Your task to perform on an android device: Toggle the flashlight Image 0: 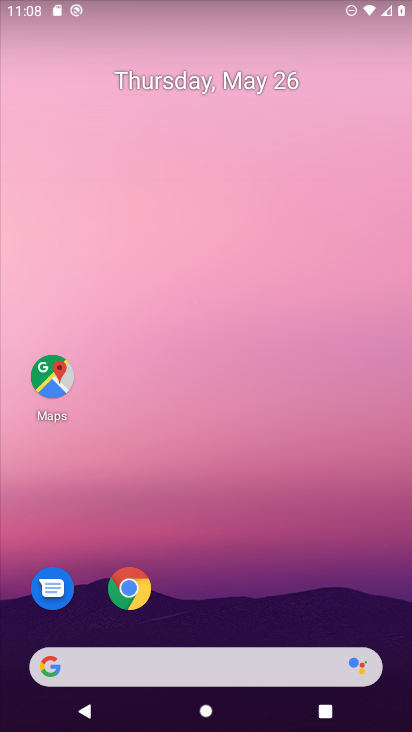
Step 0: drag from (252, 16) to (239, 582)
Your task to perform on an android device: Toggle the flashlight Image 1: 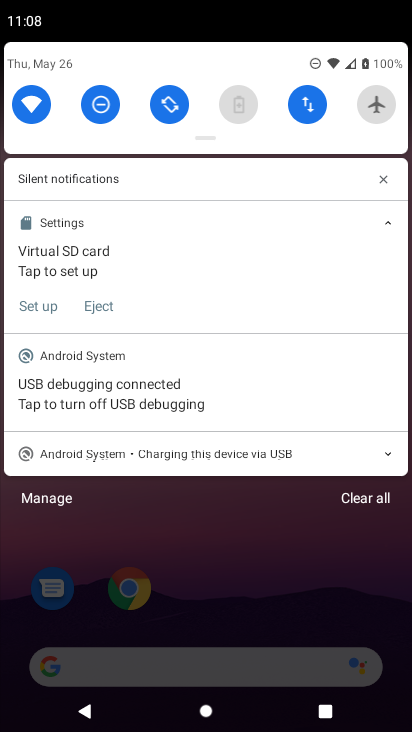
Step 1: drag from (203, 139) to (198, 481)
Your task to perform on an android device: Toggle the flashlight Image 2: 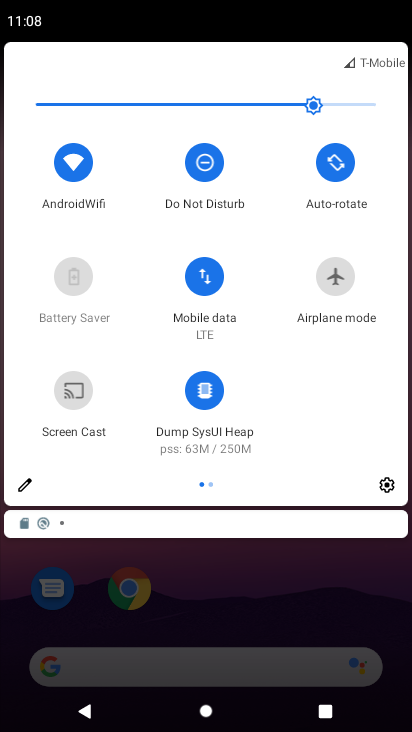
Step 2: click (21, 481)
Your task to perform on an android device: Toggle the flashlight Image 3: 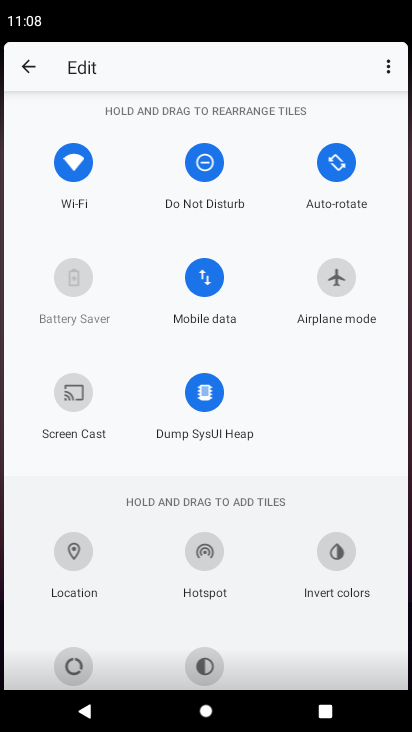
Step 3: task complete